Your task to perform on an android device: check android version Image 0: 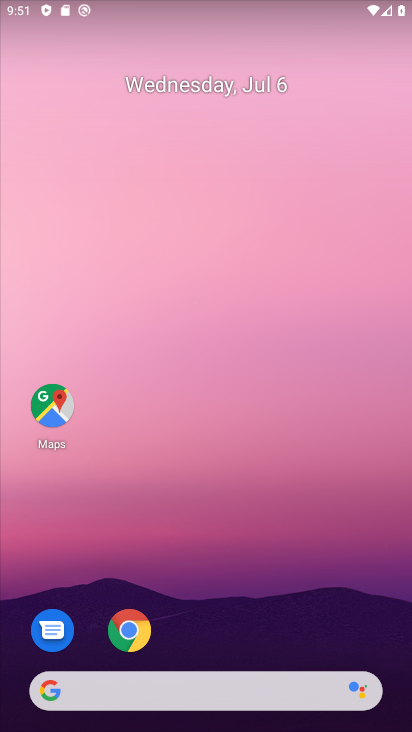
Step 0: drag from (358, 7) to (333, 612)
Your task to perform on an android device: check android version Image 1: 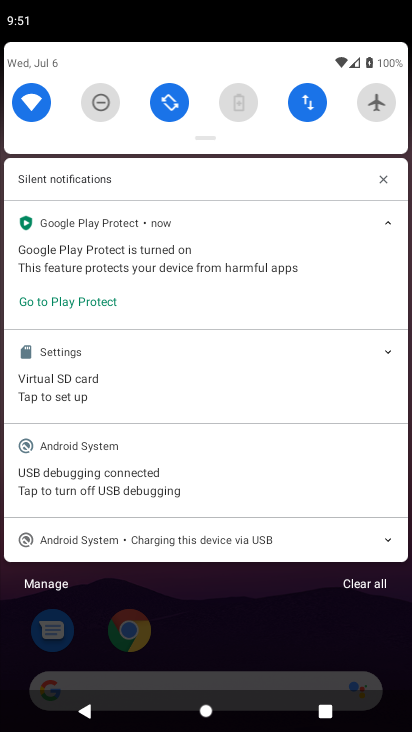
Step 1: drag from (257, 138) to (270, 545)
Your task to perform on an android device: check android version Image 2: 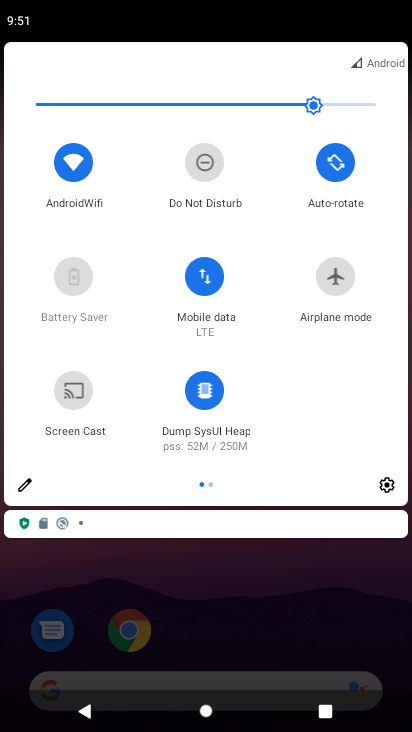
Step 2: click (37, 485)
Your task to perform on an android device: check android version Image 3: 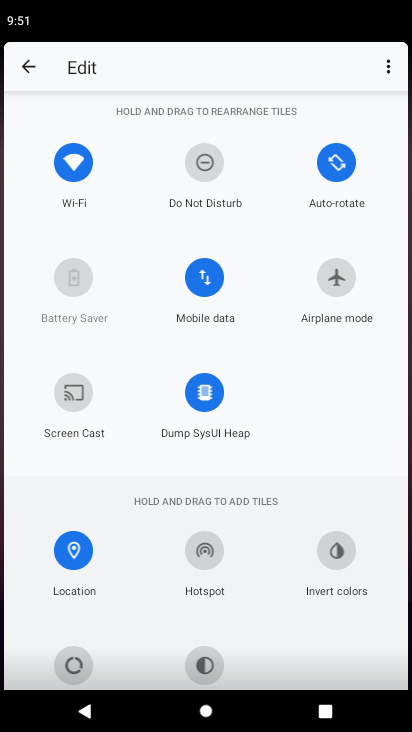
Step 3: task complete